Your task to perform on an android device: change the clock style Image 0: 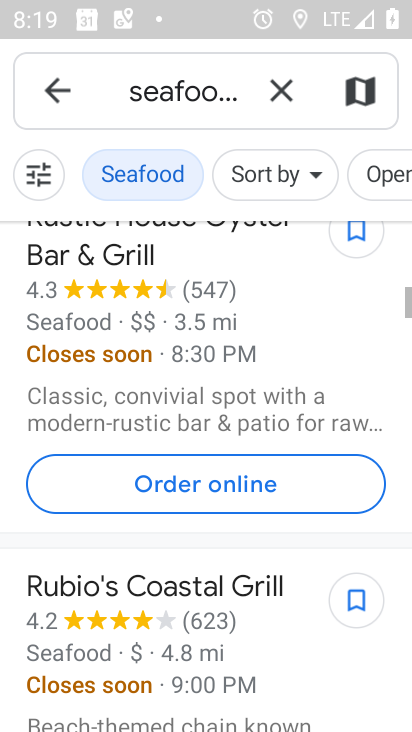
Step 0: drag from (185, 584) to (219, 236)
Your task to perform on an android device: change the clock style Image 1: 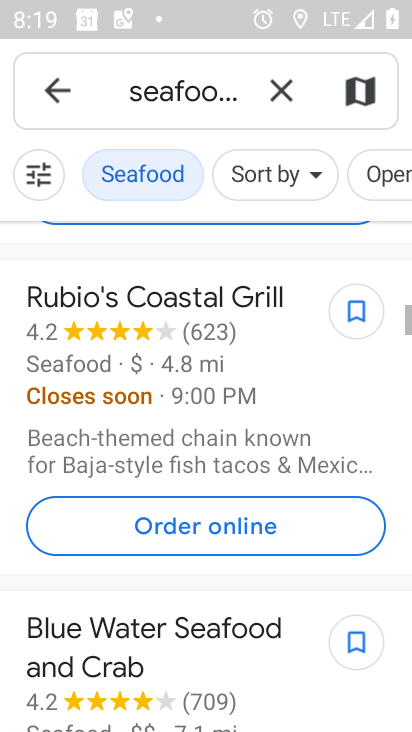
Step 1: press home button
Your task to perform on an android device: change the clock style Image 2: 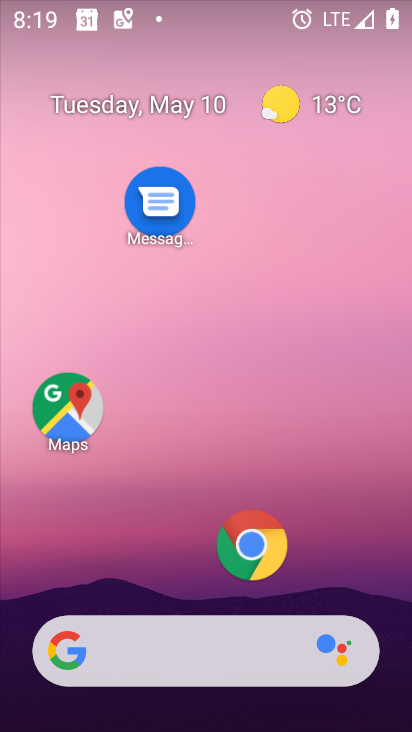
Step 2: drag from (196, 581) to (204, 90)
Your task to perform on an android device: change the clock style Image 3: 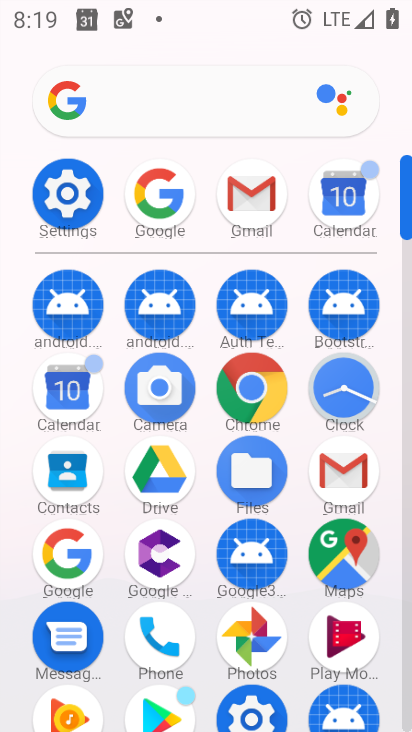
Step 3: click (346, 375)
Your task to perform on an android device: change the clock style Image 4: 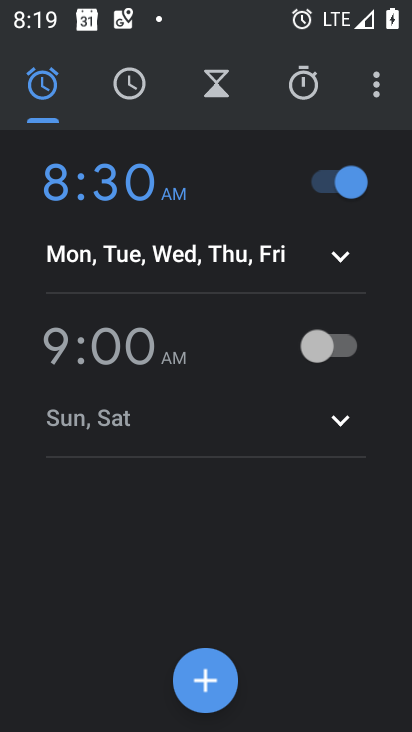
Step 4: click (369, 82)
Your task to perform on an android device: change the clock style Image 5: 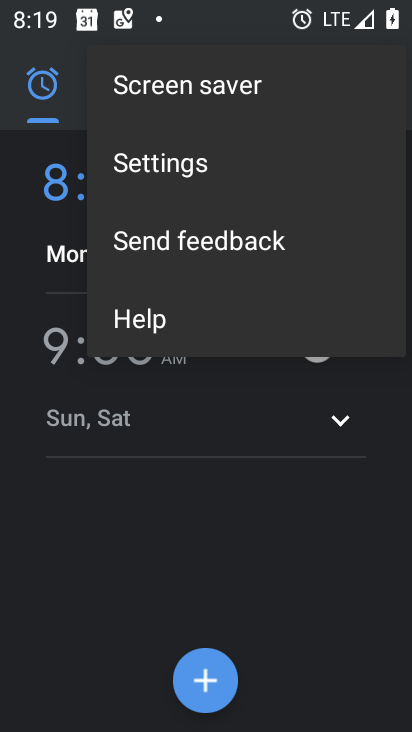
Step 5: click (219, 159)
Your task to perform on an android device: change the clock style Image 6: 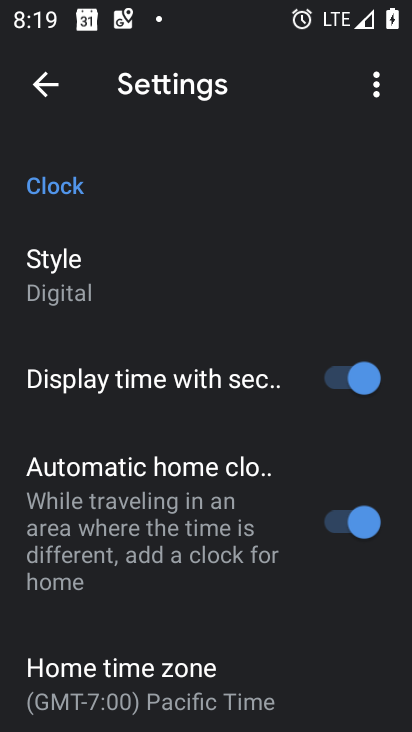
Step 6: click (119, 270)
Your task to perform on an android device: change the clock style Image 7: 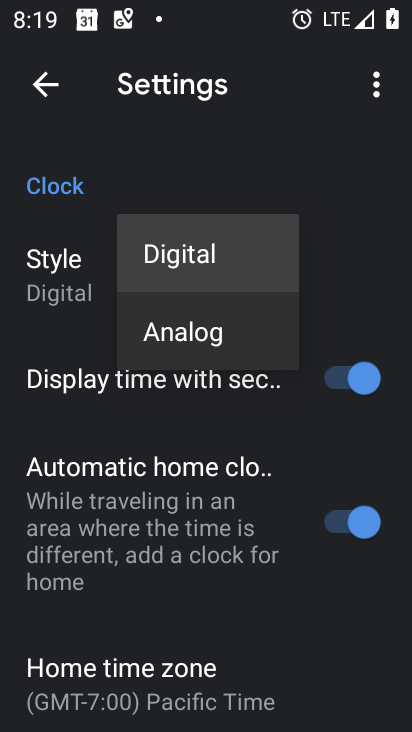
Step 7: click (162, 332)
Your task to perform on an android device: change the clock style Image 8: 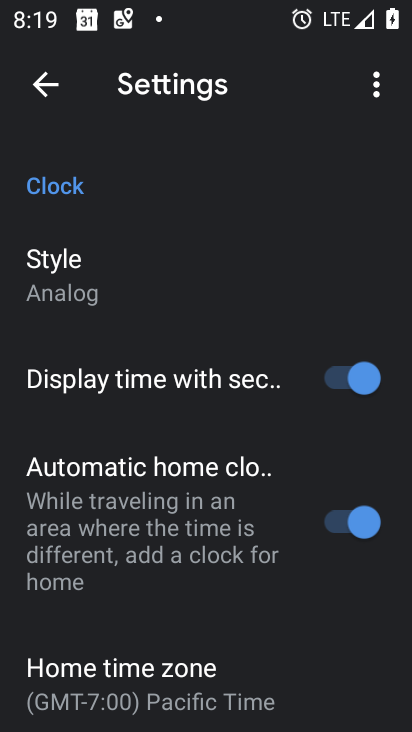
Step 8: task complete